Your task to perform on an android device: toggle priority inbox in the gmail app Image 0: 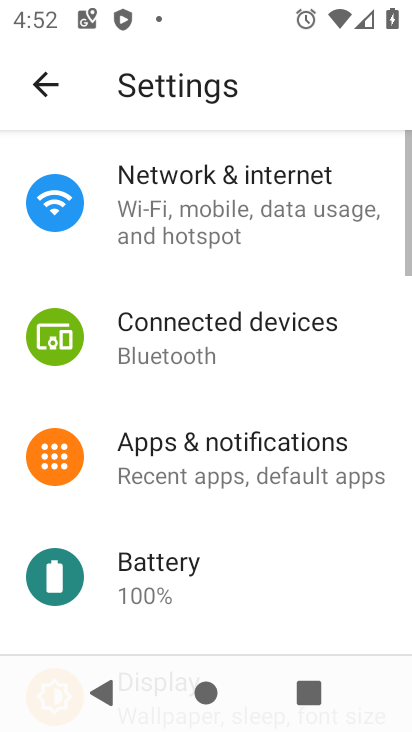
Step 0: press home button
Your task to perform on an android device: toggle priority inbox in the gmail app Image 1: 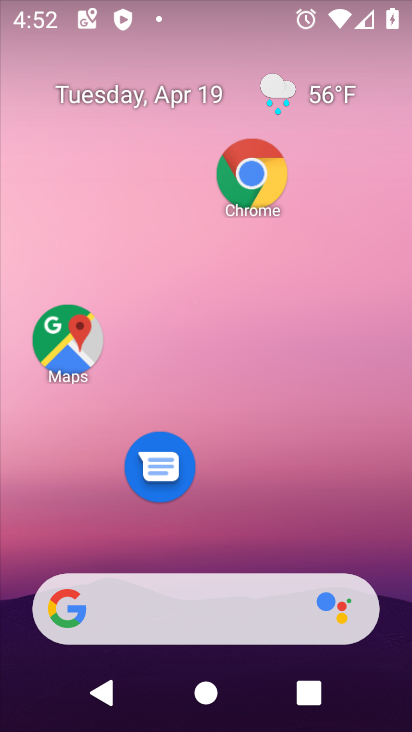
Step 1: drag from (207, 720) to (197, 71)
Your task to perform on an android device: toggle priority inbox in the gmail app Image 2: 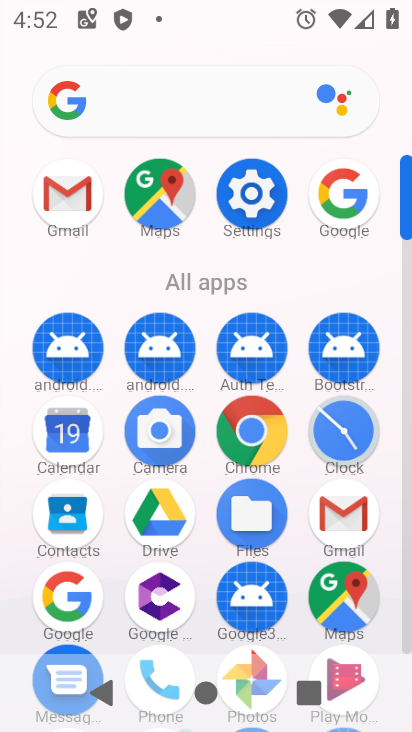
Step 2: click (342, 507)
Your task to perform on an android device: toggle priority inbox in the gmail app Image 3: 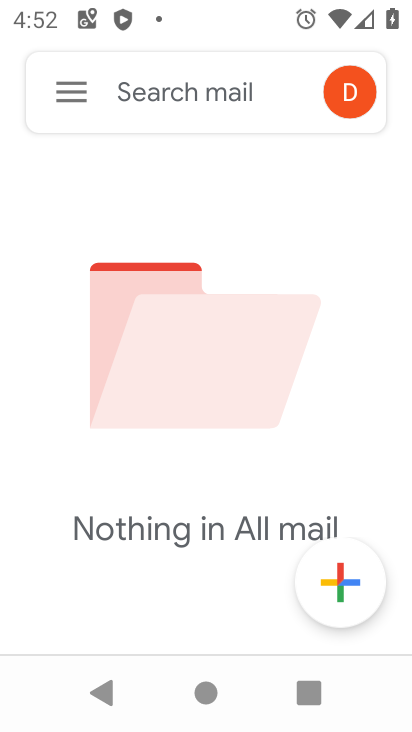
Step 3: click (68, 93)
Your task to perform on an android device: toggle priority inbox in the gmail app Image 4: 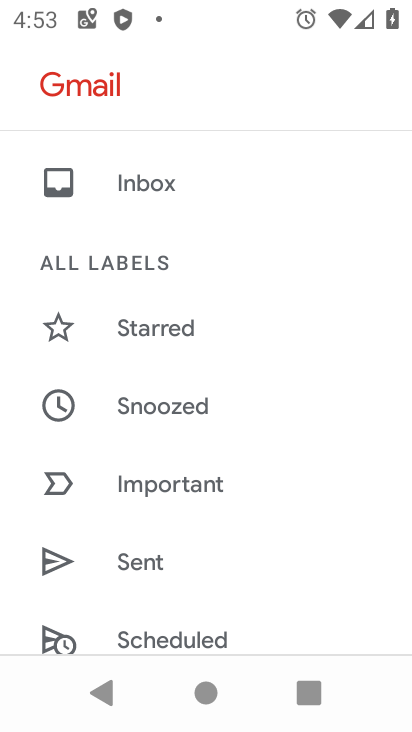
Step 4: drag from (165, 593) to (157, 91)
Your task to perform on an android device: toggle priority inbox in the gmail app Image 5: 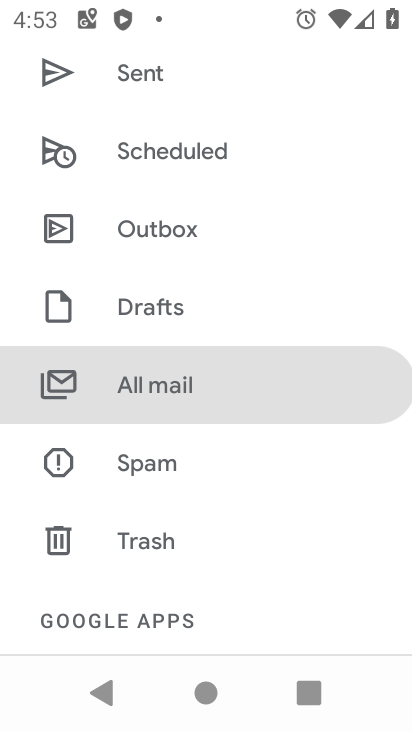
Step 5: drag from (153, 615) to (177, 183)
Your task to perform on an android device: toggle priority inbox in the gmail app Image 6: 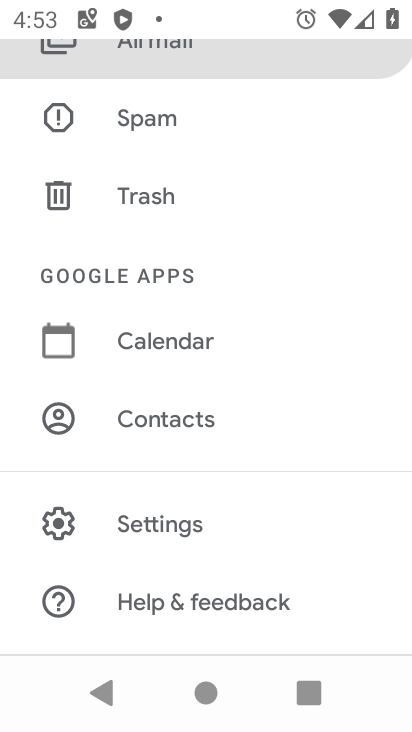
Step 6: click (163, 527)
Your task to perform on an android device: toggle priority inbox in the gmail app Image 7: 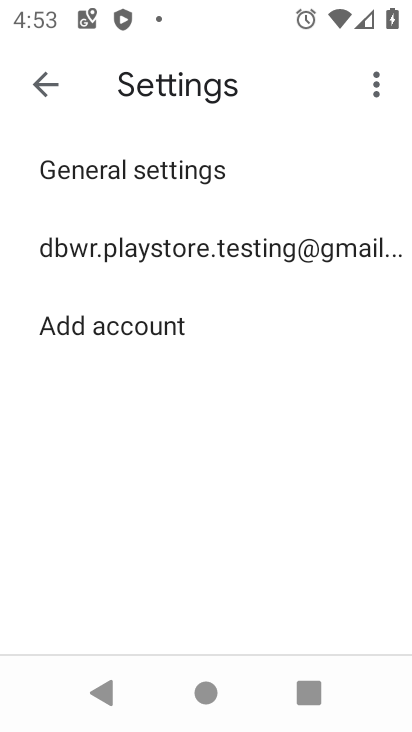
Step 7: click (128, 251)
Your task to perform on an android device: toggle priority inbox in the gmail app Image 8: 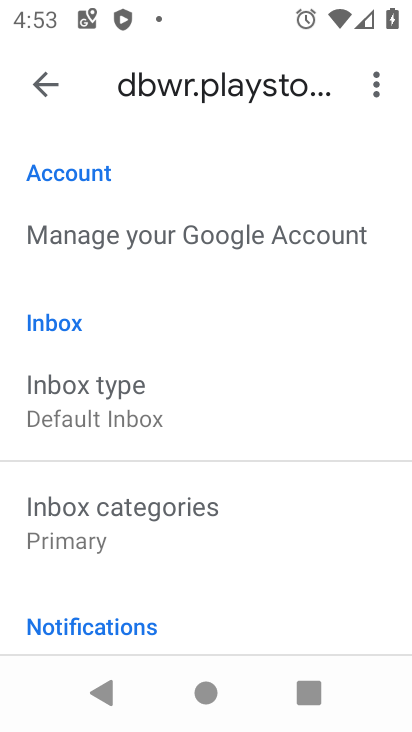
Step 8: click (84, 413)
Your task to perform on an android device: toggle priority inbox in the gmail app Image 9: 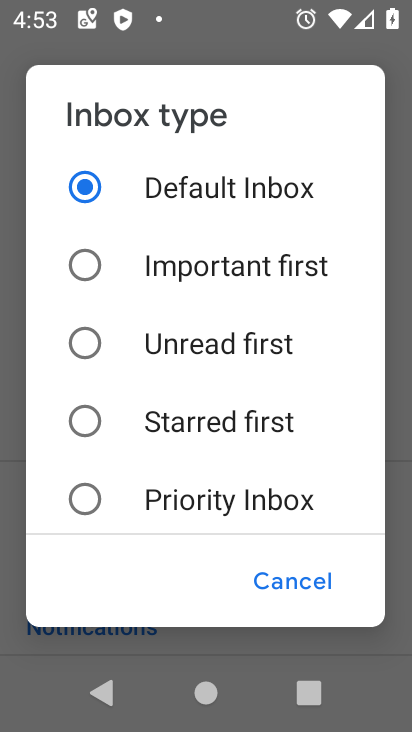
Step 9: click (90, 497)
Your task to perform on an android device: toggle priority inbox in the gmail app Image 10: 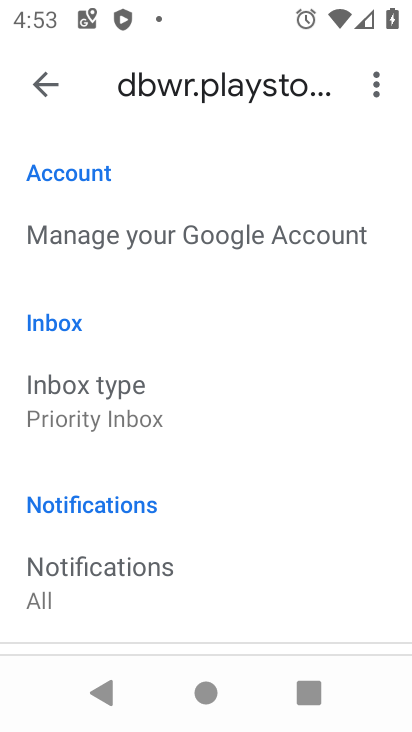
Step 10: task complete